Your task to perform on an android device: Go to Wikipedia Image 0: 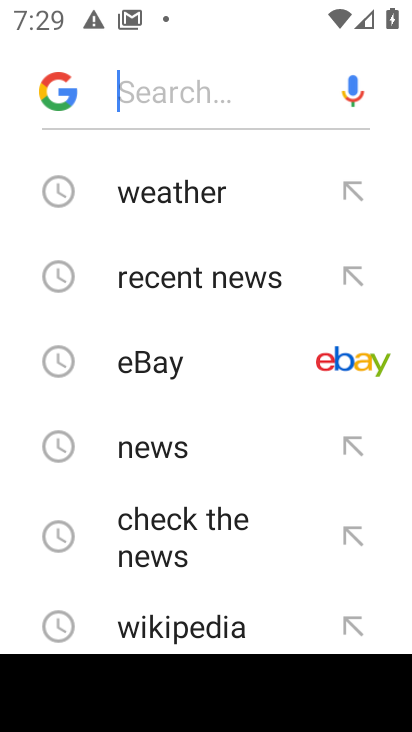
Step 0: press home button
Your task to perform on an android device: Go to Wikipedia Image 1: 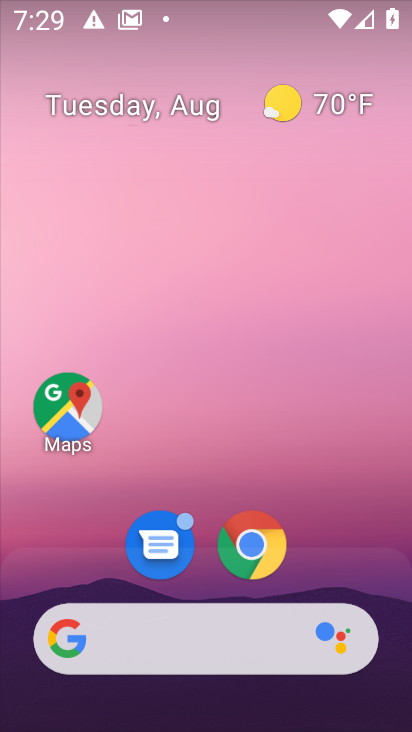
Step 1: drag from (238, 608) to (335, 104)
Your task to perform on an android device: Go to Wikipedia Image 2: 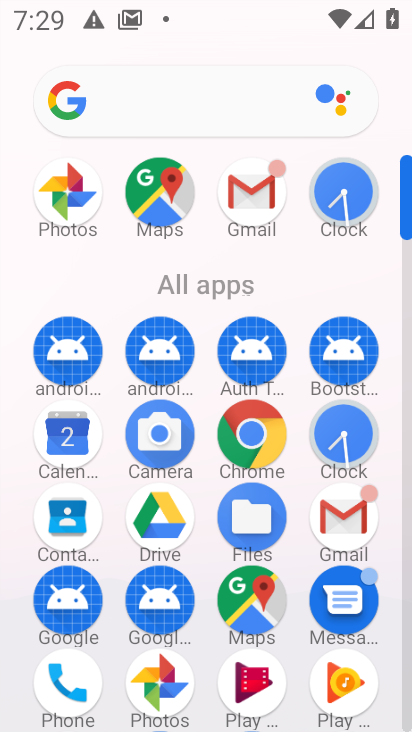
Step 2: click (254, 436)
Your task to perform on an android device: Go to Wikipedia Image 3: 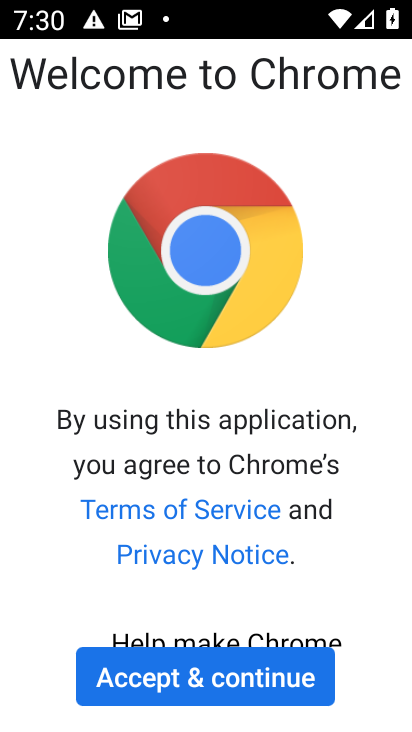
Step 3: click (239, 673)
Your task to perform on an android device: Go to Wikipedia Image 4: 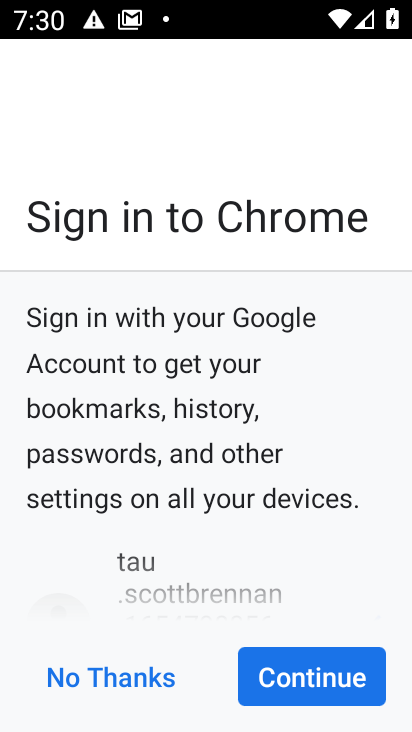
Step 4: click (322, 672)
Your task to perform on an android device: Go to Wikipedia Image 5: 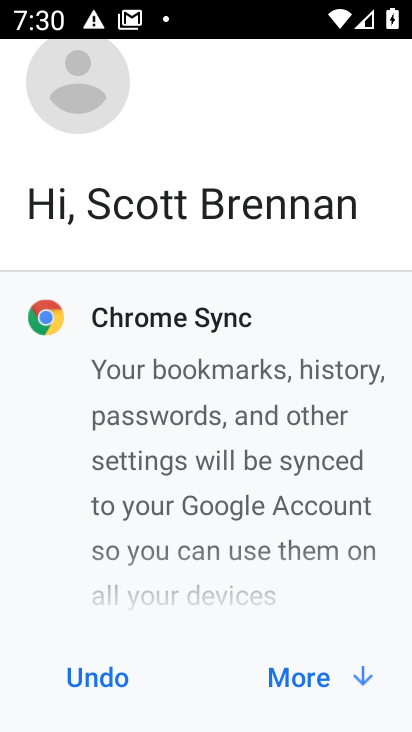
Step 5: click (319, 662)
Your task to perform on an android device: Go to Wikipedia Image 6: 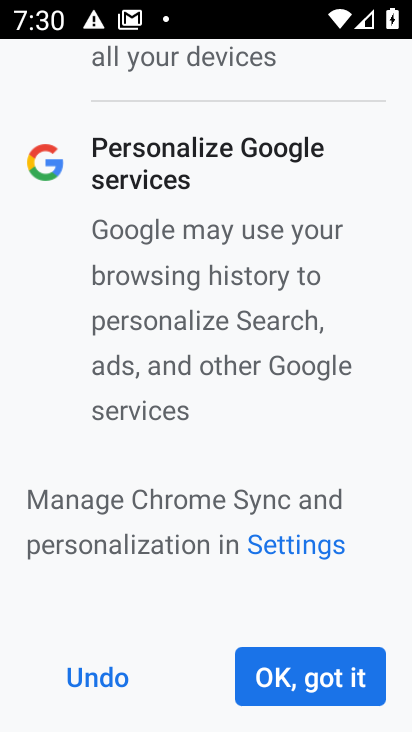
Step 6: click (320, 667)
Your task to perform on an android device: Go to Wikipedia Image 7: 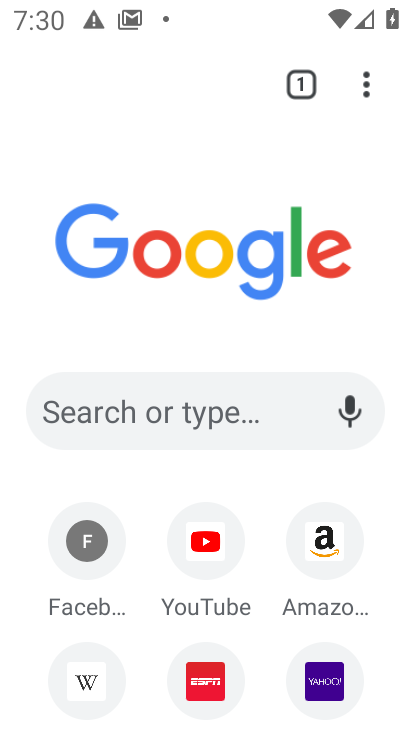
Step 7: click (120, 655)
Your task to perform on an android device: Go to Wikipedia Image 8: 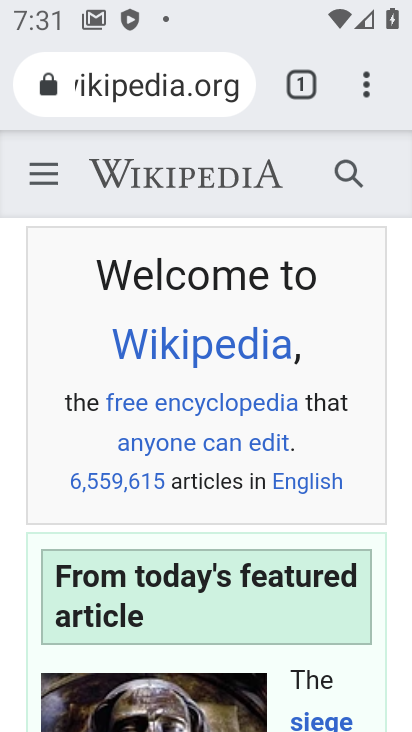
Step 8: task complete